Your task to perform on an android device: Go to internet settings Image 0: 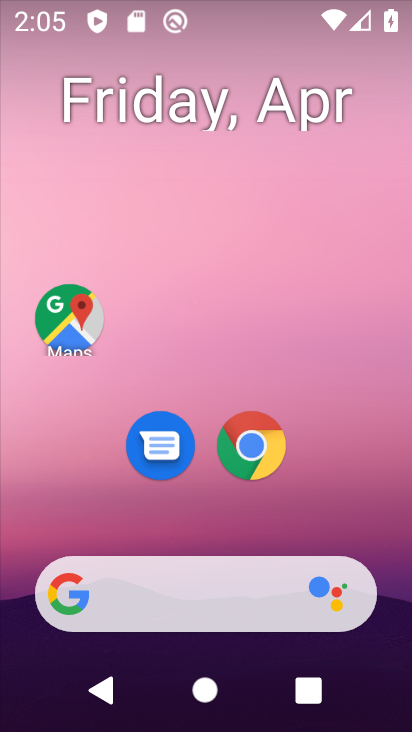
Step 0: drag from (339, 518) to (273, 37)
Your task to perform on an android device: Go to internet settings Image 1: 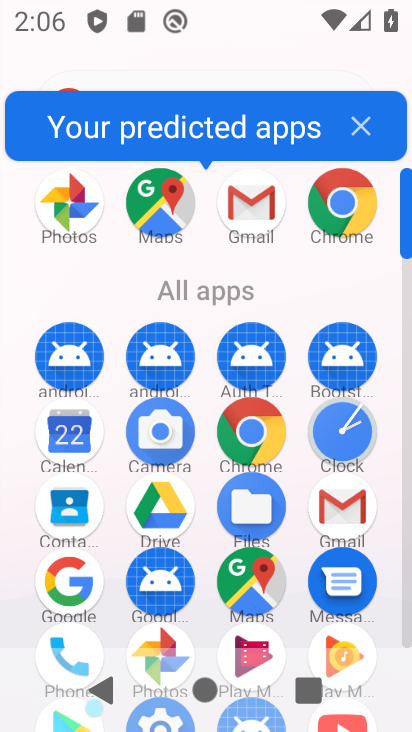
Step 1: drag from (204, 398) to (198, 218)
Your task to perform on an android device: Go to internet settings Image 2: 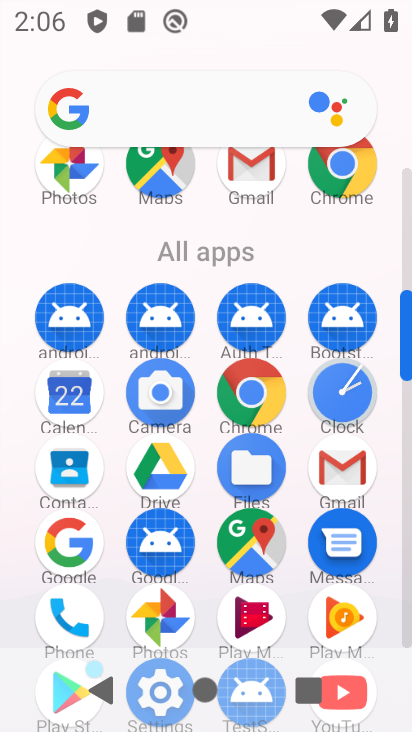
Step 2: drag from (205, 456) to (259, 274)
Your task to perform on an android device: Go to internet settings Image 3: 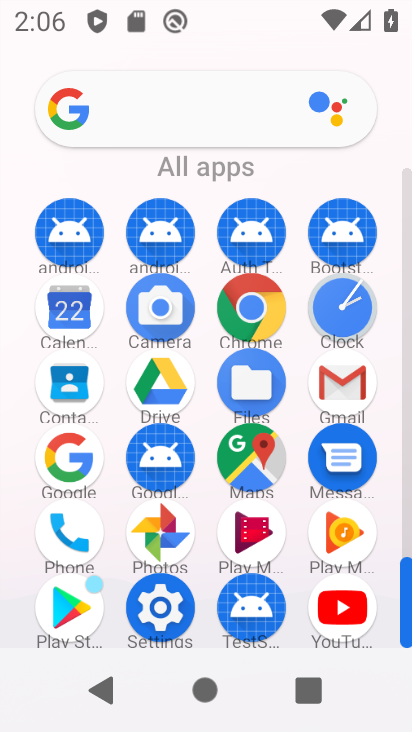
Step 3: click (161, 604)
Your task to perform on an android device: Go to internet settings Image 4: 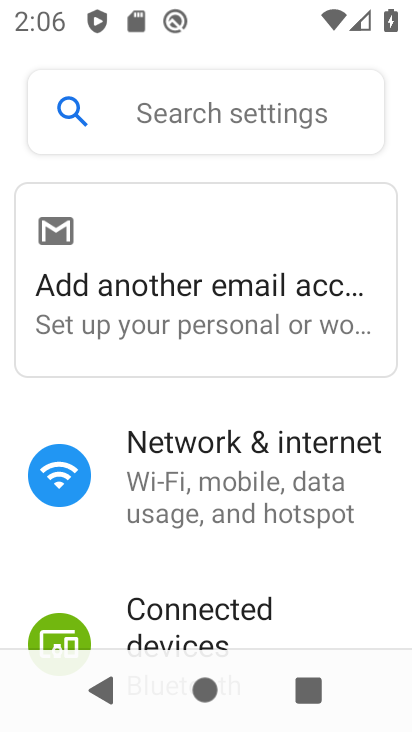
Step 4: click (232, 443)
Your task to perform on an android device: Go to internet settings Image 5: 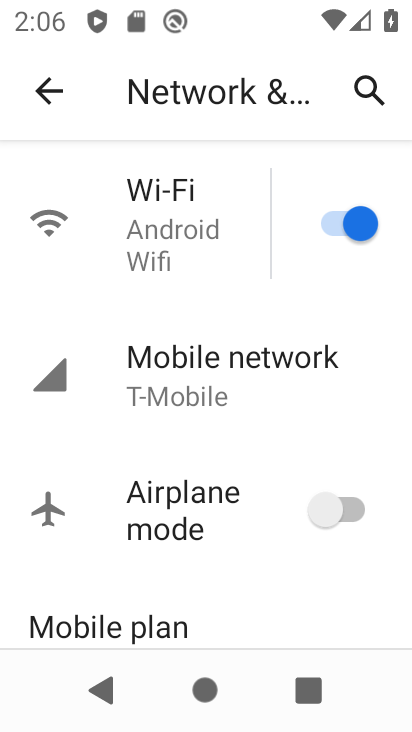
Step 5: click (193, 243)
Your task to perform on an android device: Go to internet settings Image 6: 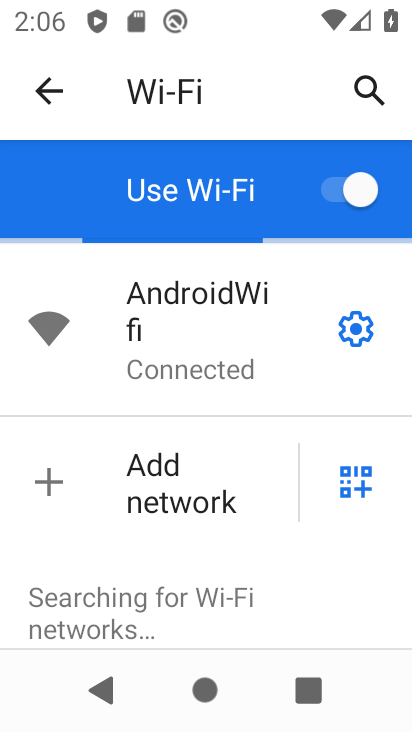
Step 6: task complete